Your task to perform on an android device: Set the phone to "Do not disturb". Image 0: 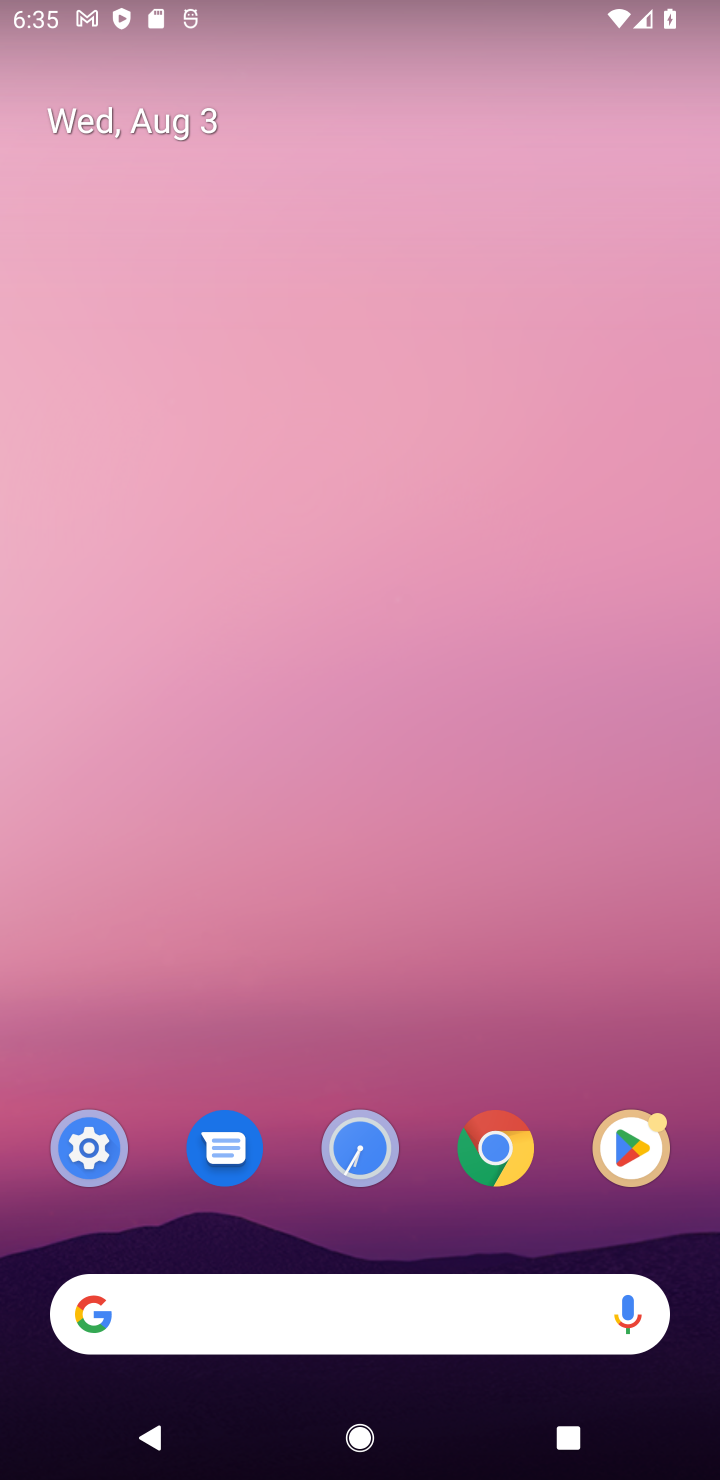
Step 0: click (627, 1135)
Your task to perform on an android device: Set the phone to "Do not disturb". Image 1: 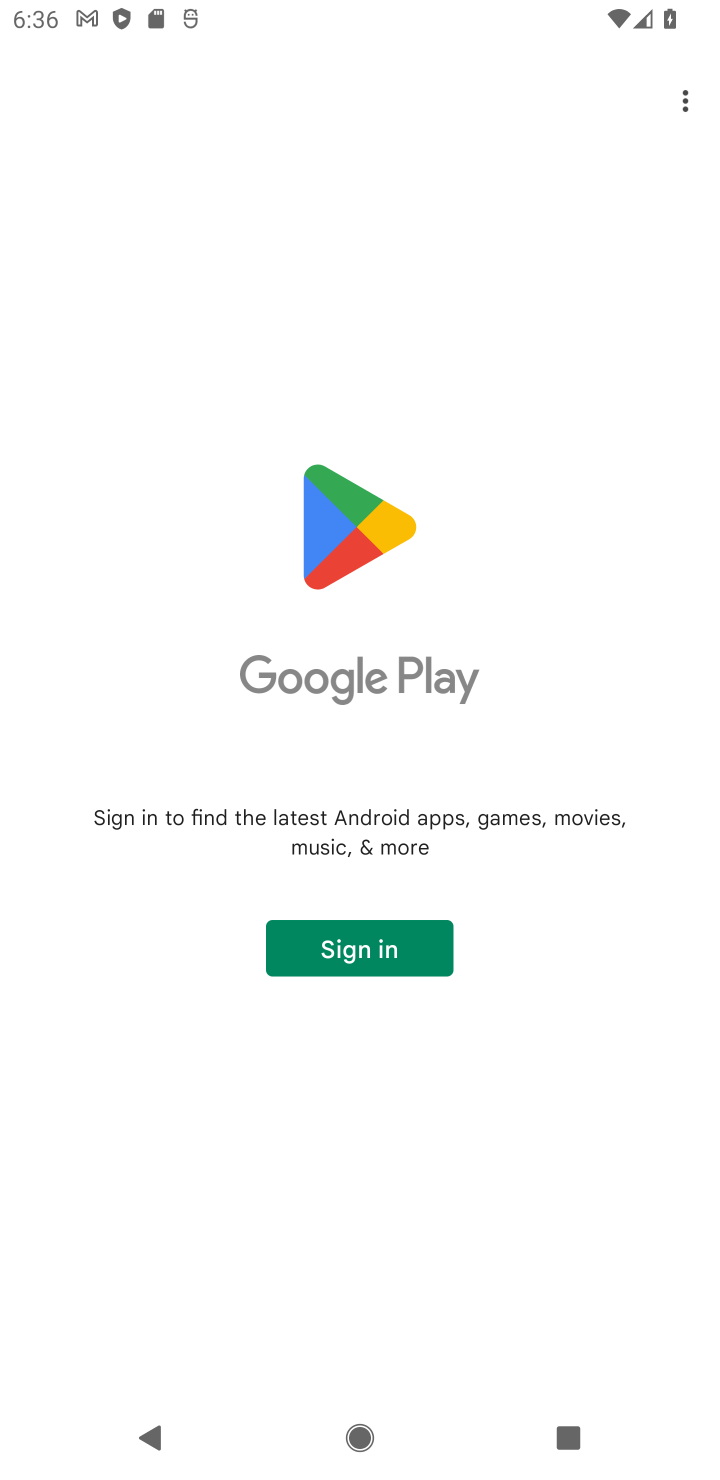
Step 1: press back button
Your task to perform on an android device: Set the phone to "Do not disturb". Image 2: 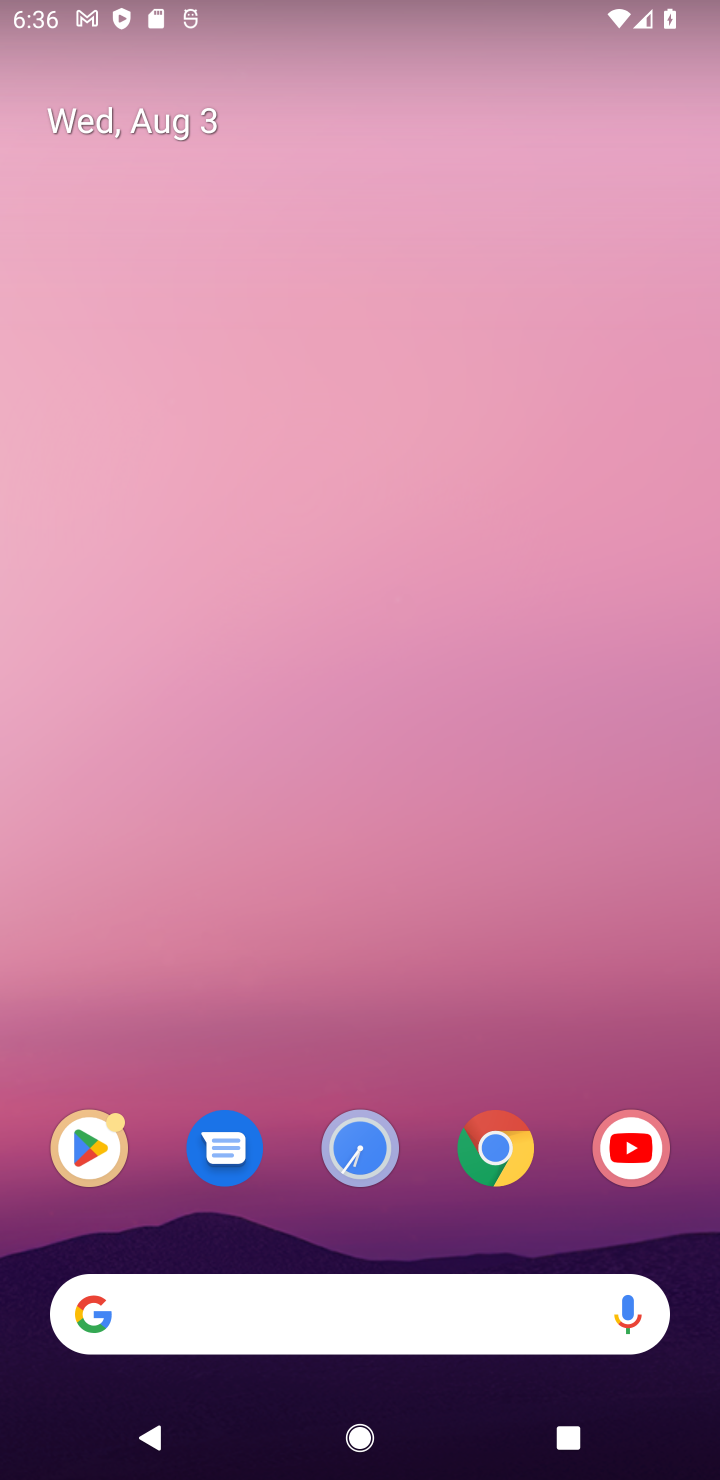
Step 2: press back button
Your task to perform on an android device: Set the phone to "Do not disturb". Image 3: 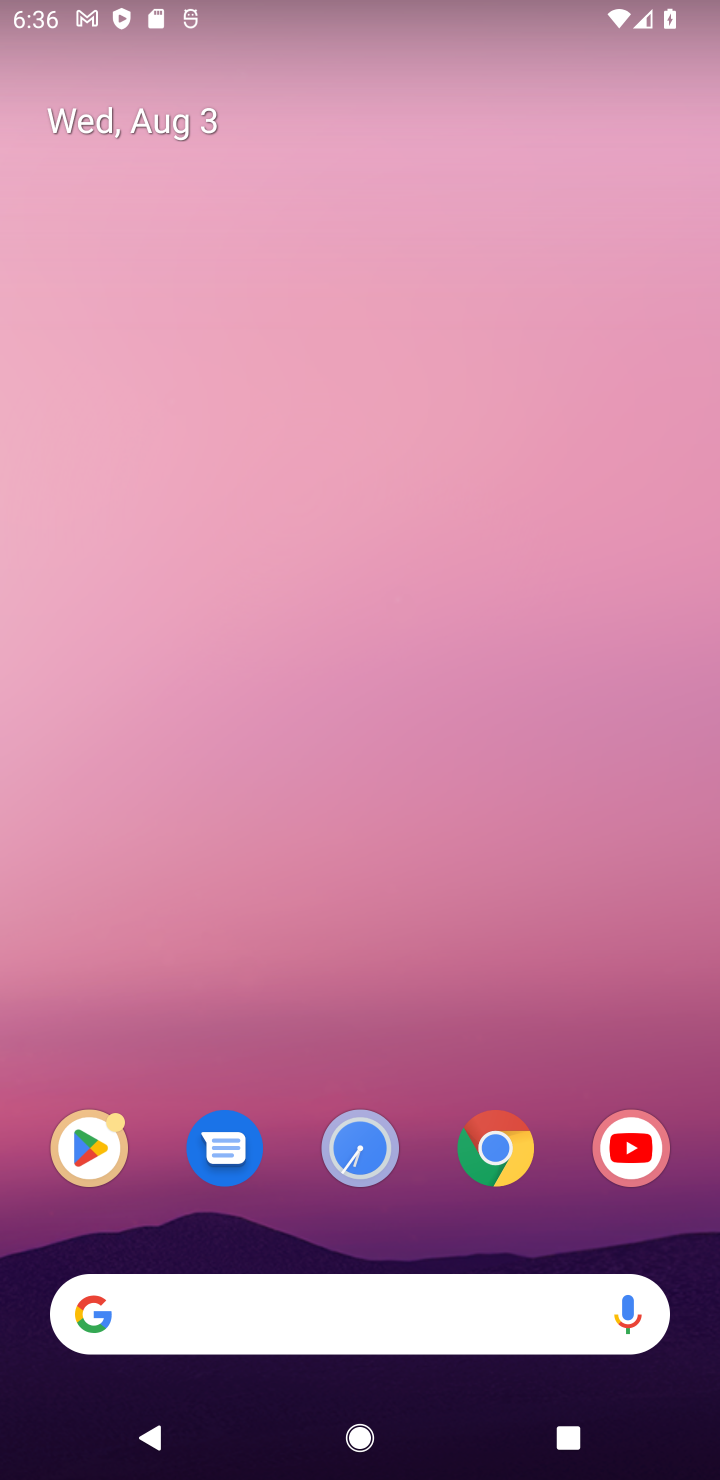
Step 3: drag from (282, 871) to (263, 330)
Your task to perform on an android device: Set the phone to "Do not disturb". Image 4: 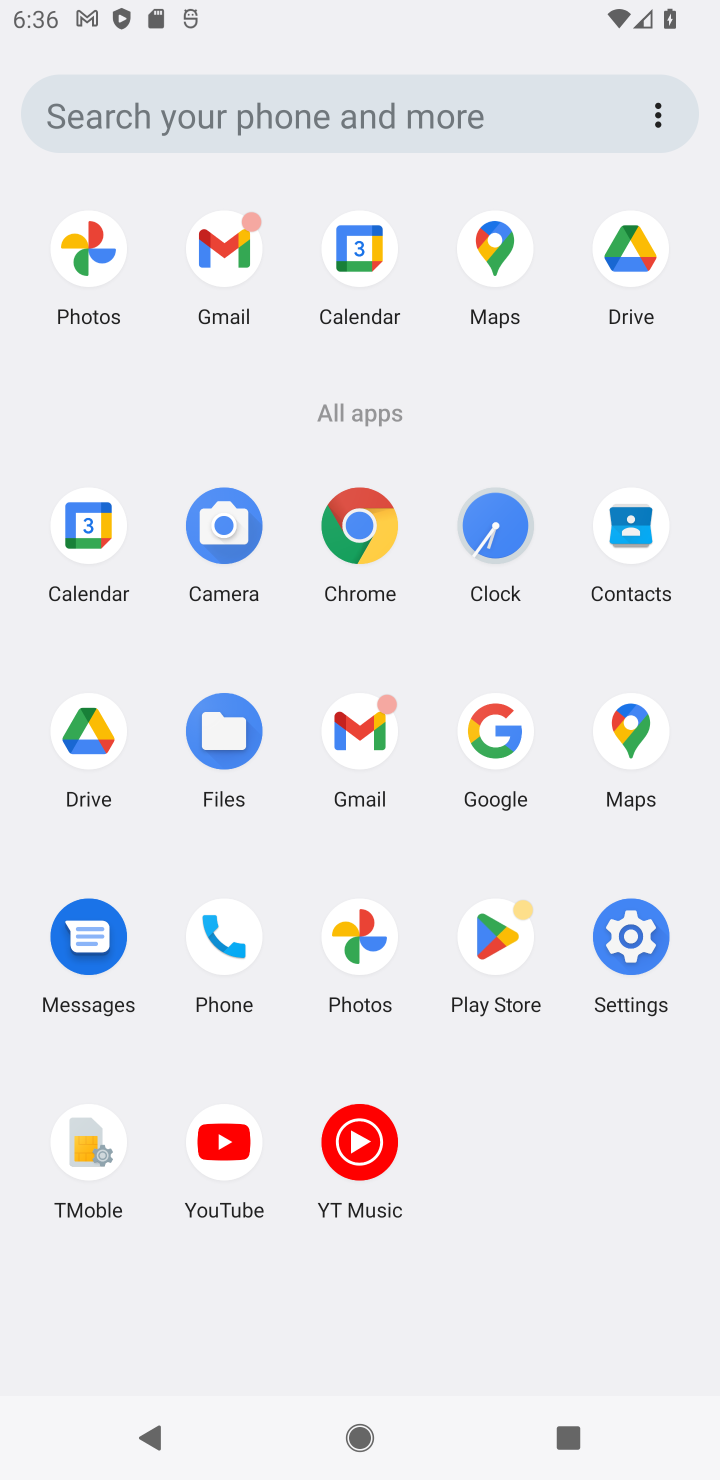
Step 4: click (616, 948)
Your task to perform on an android device: Set the phone to "Do not disturb". Image 5: 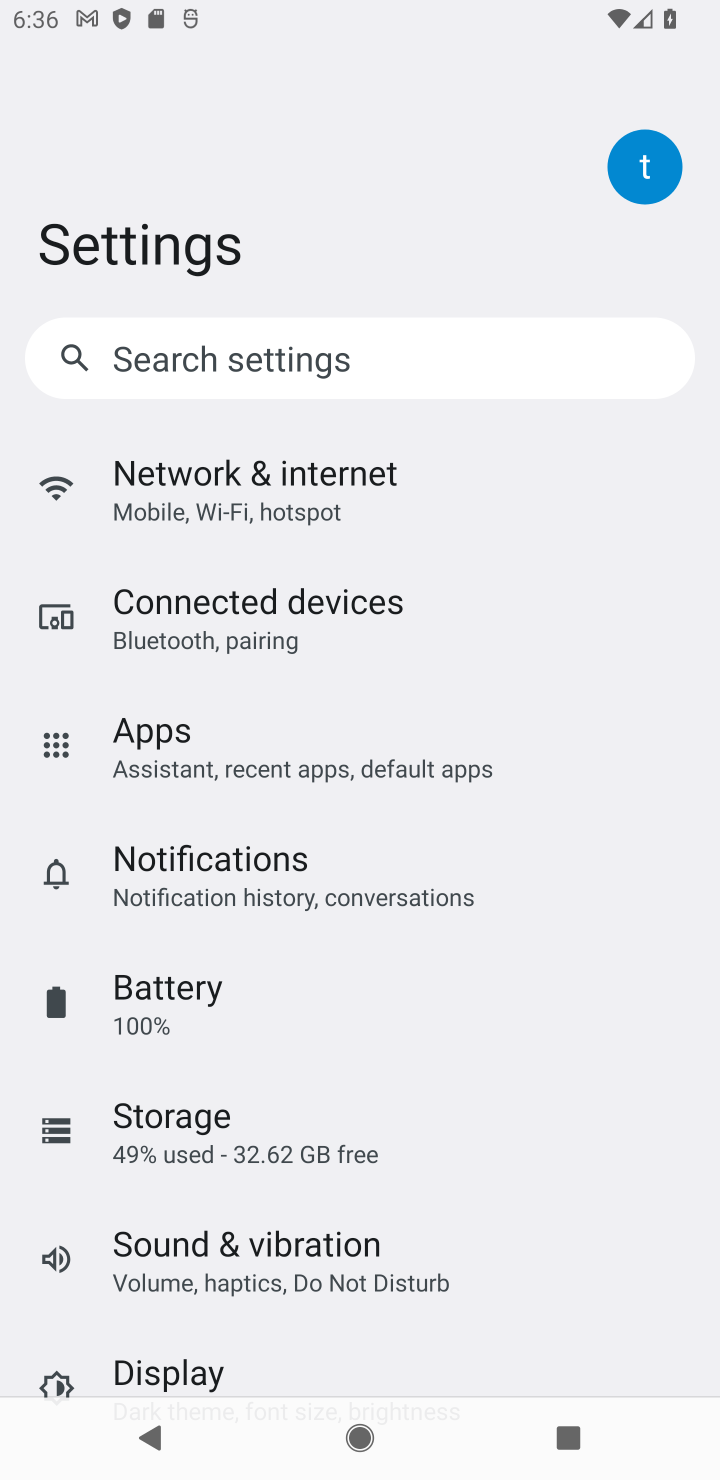
Step 5: drag from (215, 1090) to (209, 917)
Your task to perform on an android device: Set the phone to "Do not disturb". Image 6: 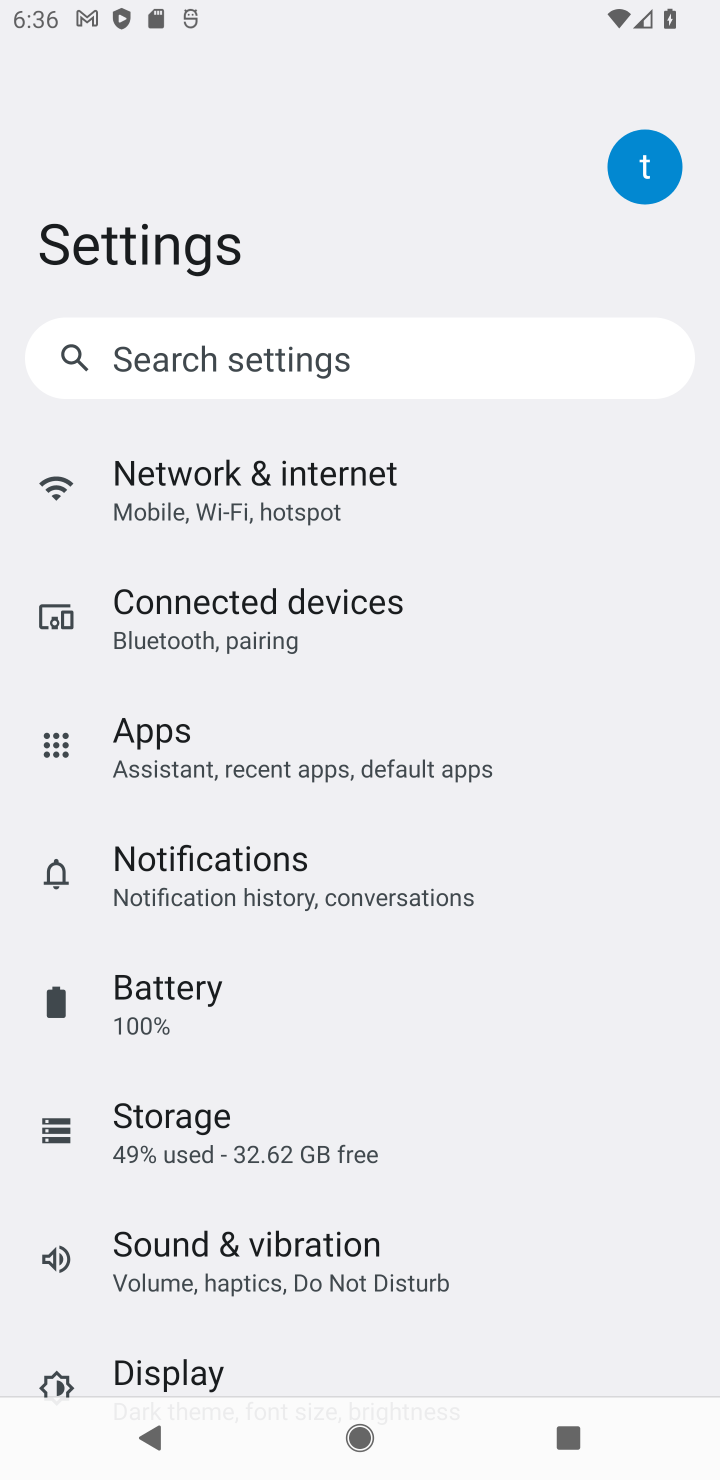
Step 6: click (265, 1276)
Your task to perform on an android device: Set the phone to "Do not disturb". Image 7: 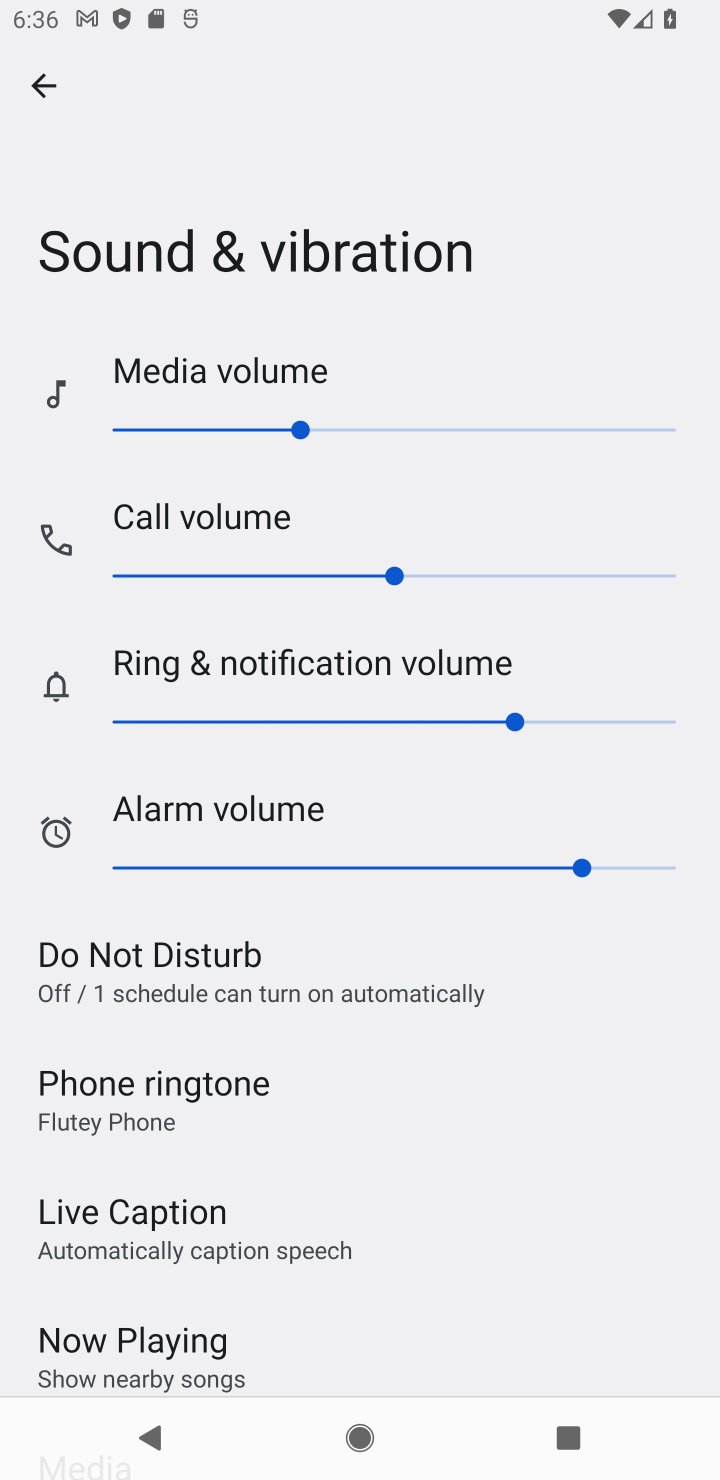
Step 7: click (179, 976)
Your task to perform on an android device: Set the phone to "Do not disturb". Image 8: 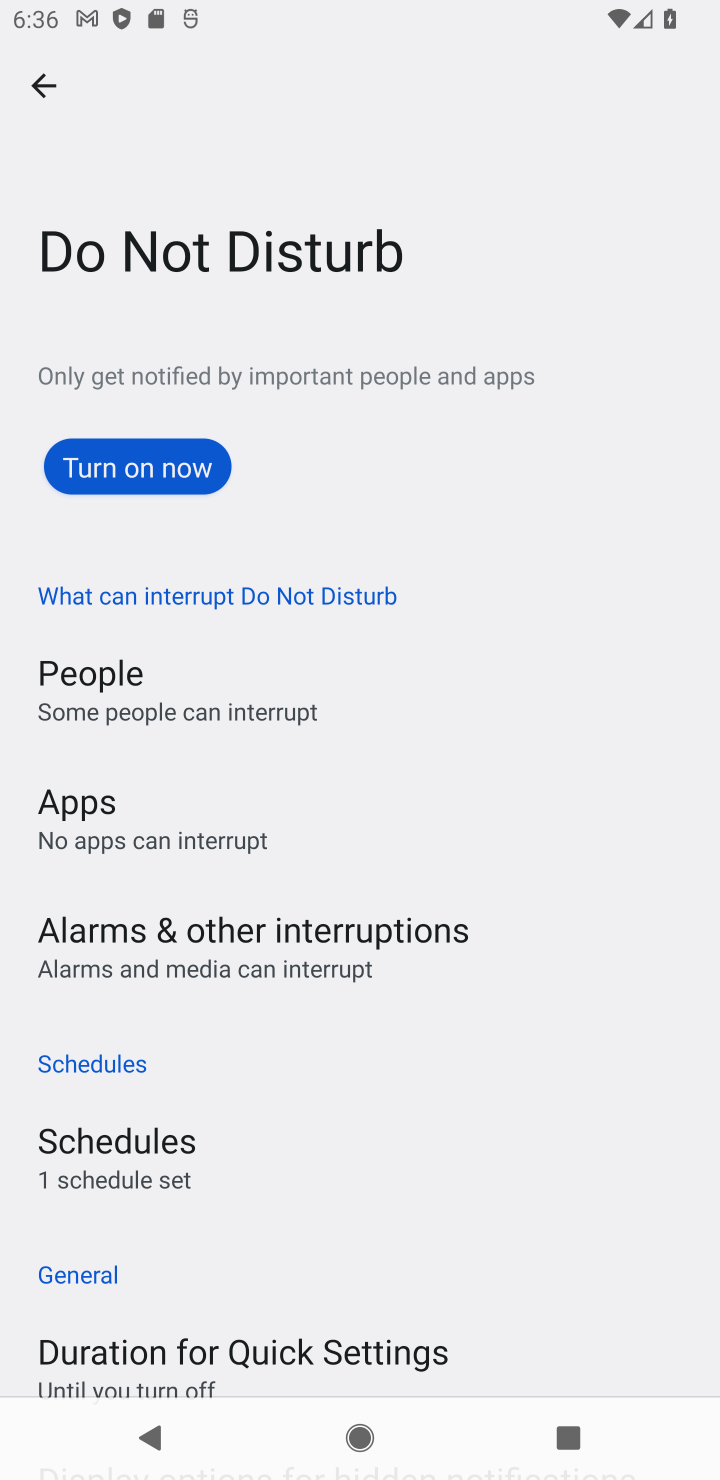
Step 8: click (119, 461)
Your task to perform on an android device: Set the phone to "Do not disturb". Image 9: 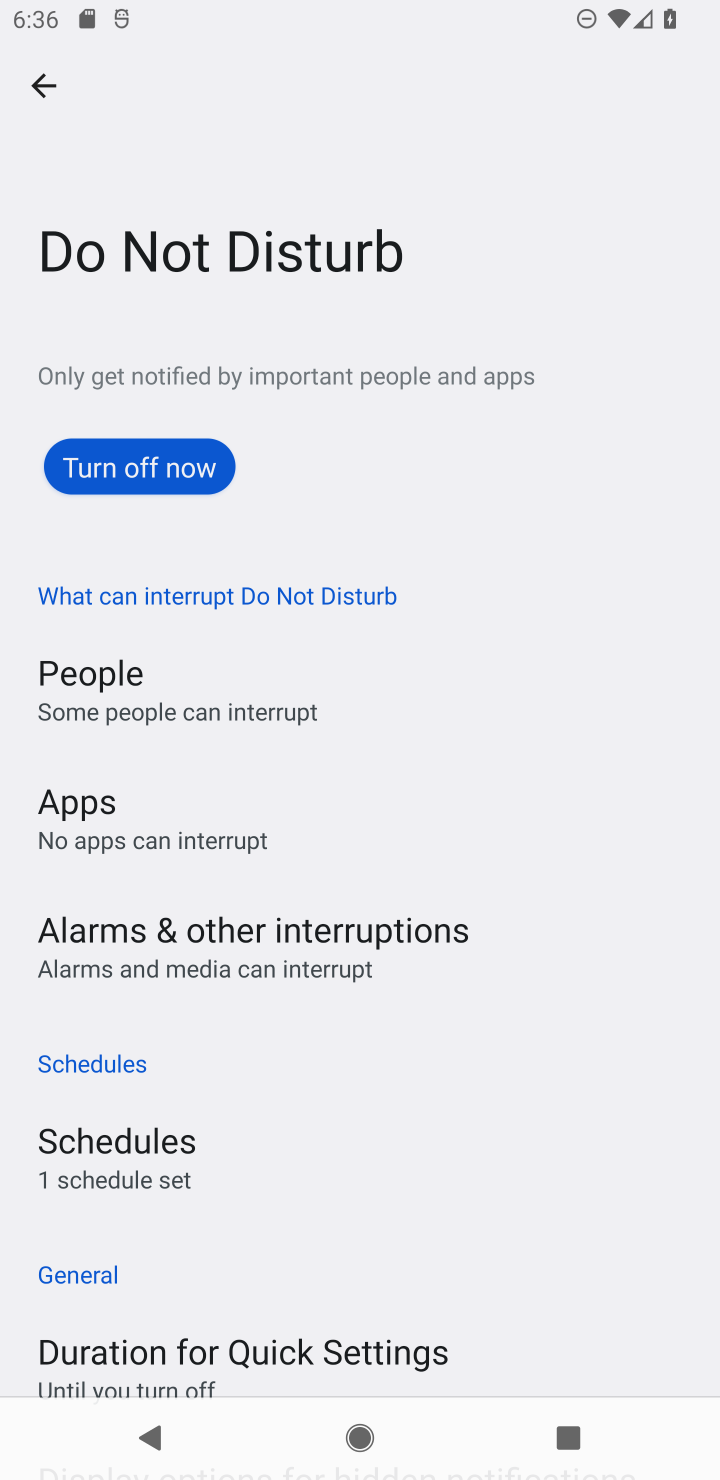
Step 9: task complete